Your task to perform on an android device: turn on wifi Image 0: 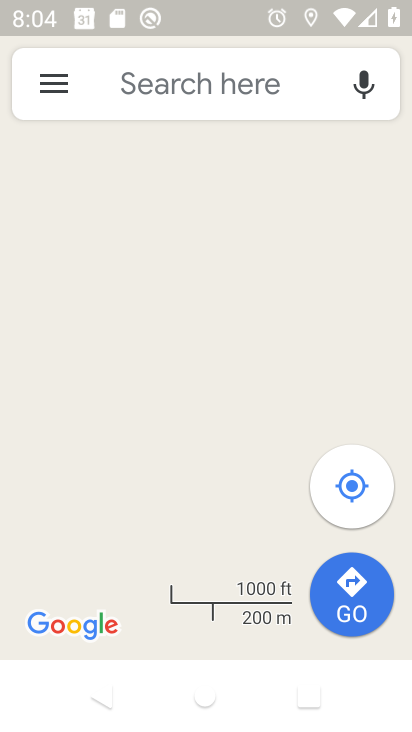
Step 0: press home button
Your task to perform on an android device: turn on wifi Image 1: 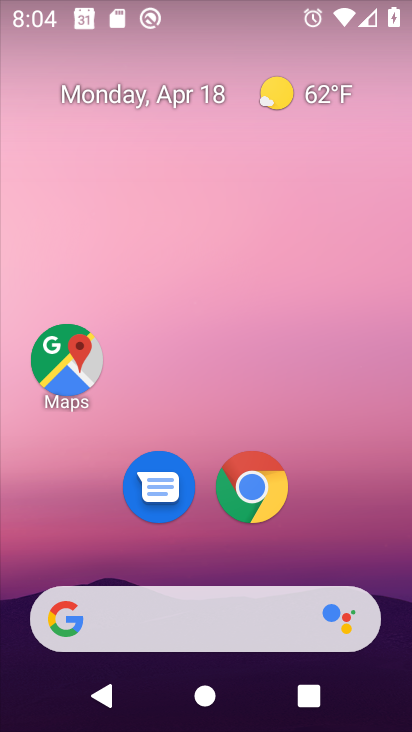
Step 1: drag from (198, 535) to (253, 50)
Your task to perform on an android device: turn on wifi Image 2: 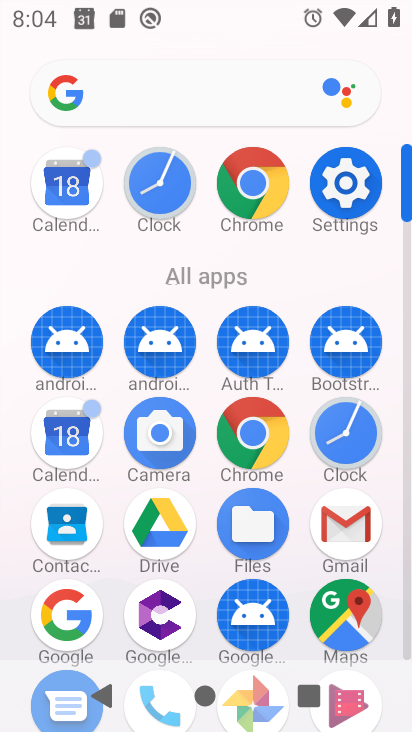
Step 2: click (343, 179)
Your task to perform on an android device: turn on wifi Image 3: 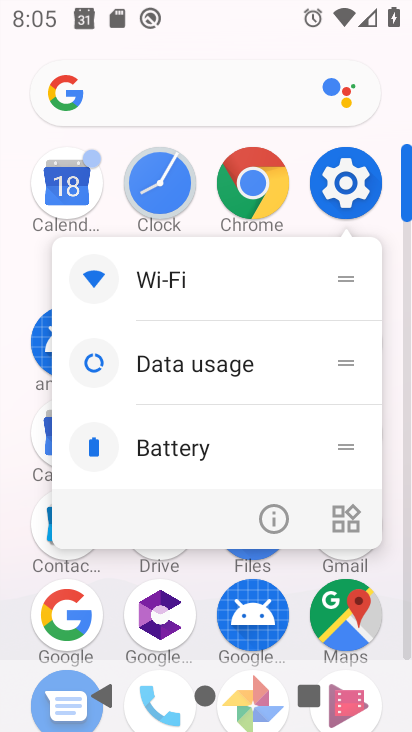
Step 3: click (343, 179)
Your task to perform on an android device: turn on wifi Image 4: 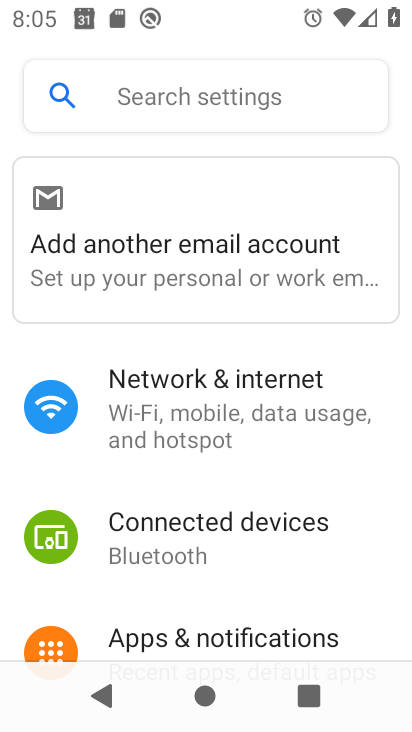
Step 4: click (94, 425)
Your task to perform on an android device: turn on wifi Image 5: 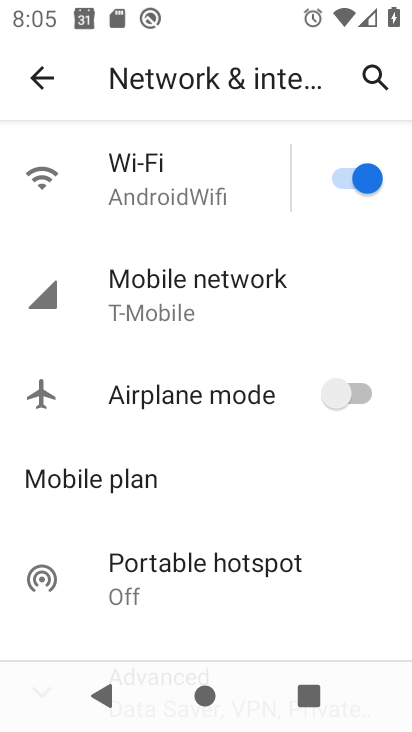
Step 5: click (238, 178)
Your task to perform on an android device: turn on wifi Image 6: 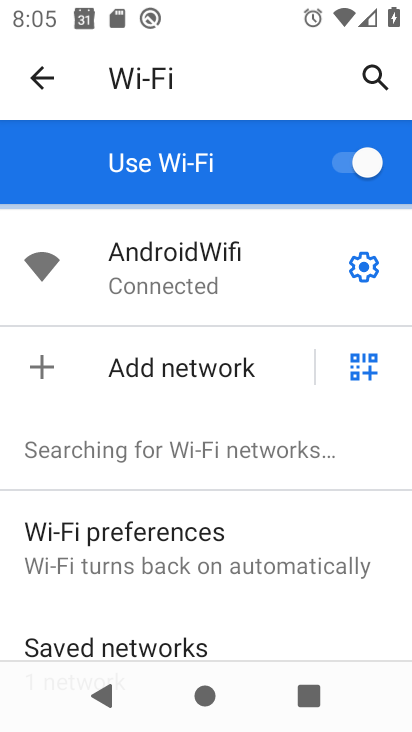
Step 6: task complete